Your task to perform on an android device: turn vacation reply on in the gmail app Image 0: 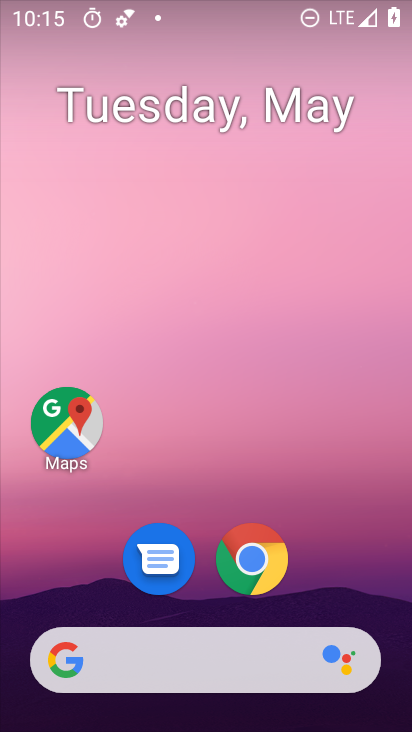
Step 0: drag from (358, 480) to (318, 86)
Your task to perform on an android device: turn vacation reply on in the gmail app Image 1: 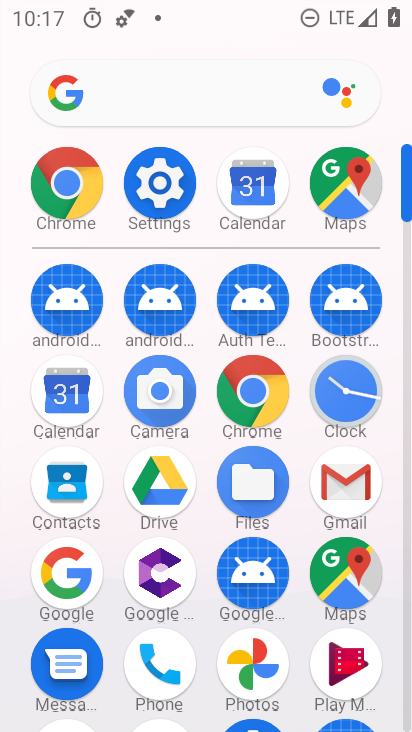
Step 1: click (326, 489)
Your task to perform on an android device: turn vacation reply on in the gmail app Image 2: 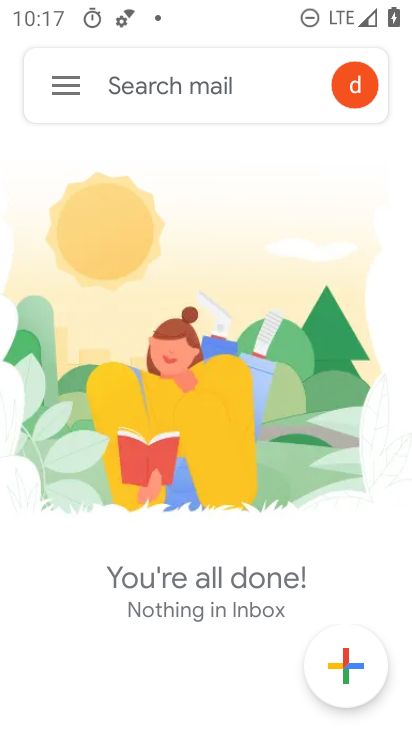
Step 2: click (54, 94)
Your task to perform on an android device: turn vacation reply on in the gmail app Image 3: 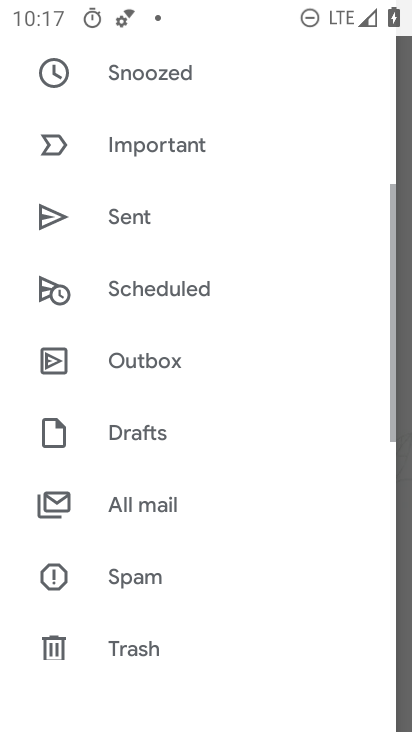
Step 3: drag from (207, 568) to (269, 58)
Your task to perform on an android device: turn vacation reply on in the gmail app Image 4: 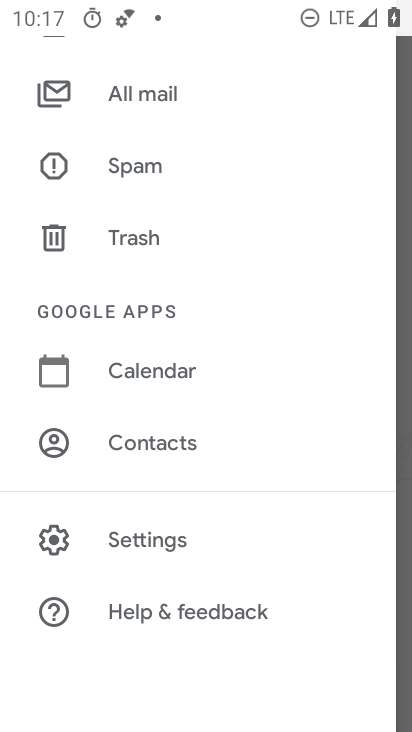
Step 4: click (245, 538)
Your task to perform on an android device: turn vacation reply on in the gmail app Image 5: 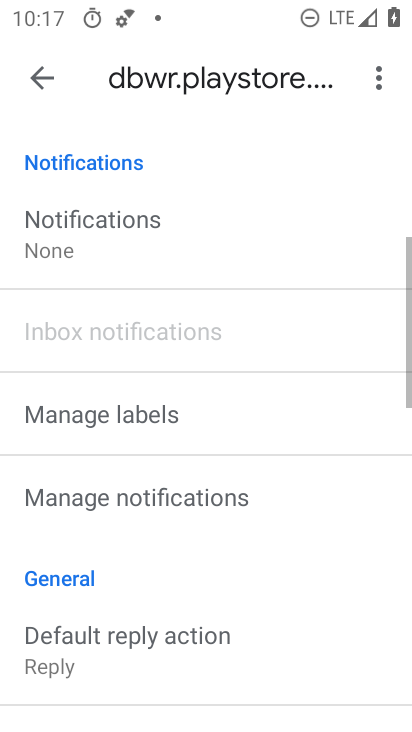
Step 5: drag from (177, 641) to (222, 80)
Your task to perform on an android device: turn vacation reply on in the gmail app Image 6: 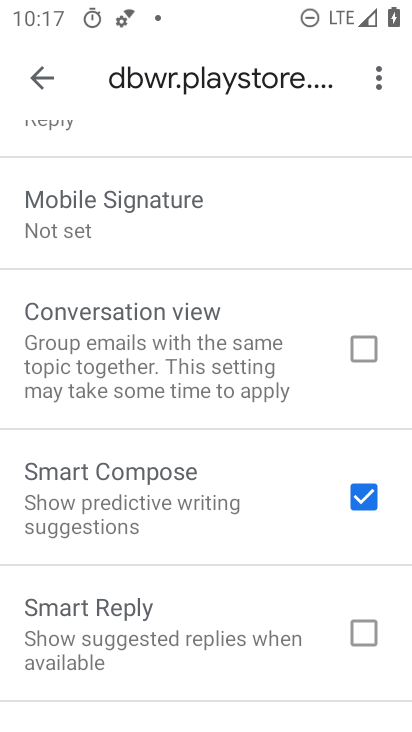
Step 6: drag from (164, 610) to (194, 174)
Your task to perform on an android device: turn vacation reply on in the gmail app Image 7: 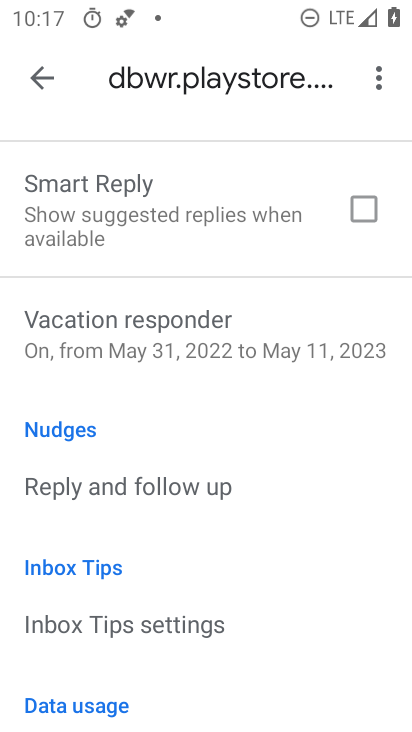
Step 7: click (226, 349)
Your task to perform on an android device: turn vacation reply on in the gmail app Image 8: 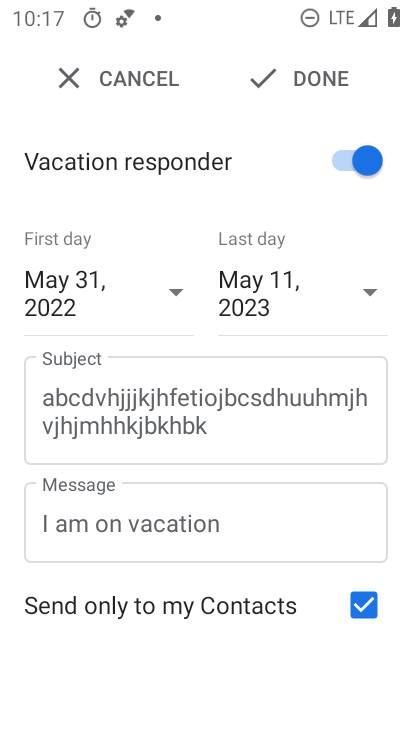
Step 8: task complete